Your task to perform on an android device: turn off improve location accuracy Image 0: 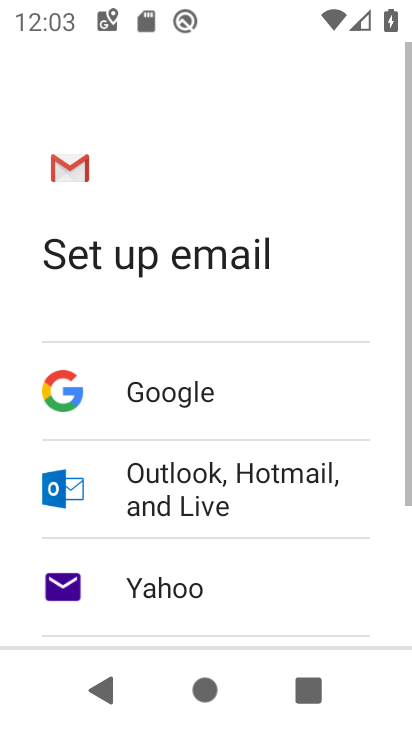
Step 0: press home button
Your task to perform on an android device: turn off improve location accuracy Image 1: 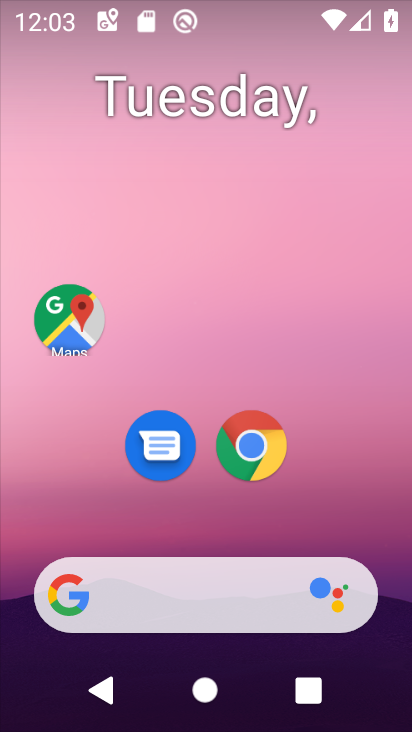
Step 1: drag from (331, 473) to (244, 10)
Your task to perform on an android device: turn off improve location accuracy Image 2: 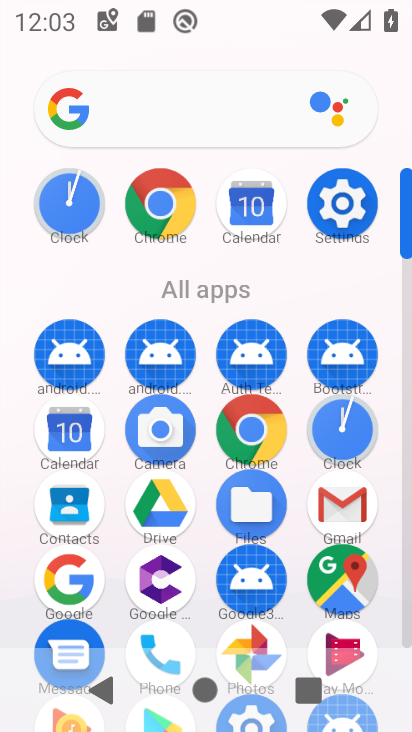
Step 2: click (337, 205)
Your task to perform on an android device: turn off improve location accuracy Image 3: 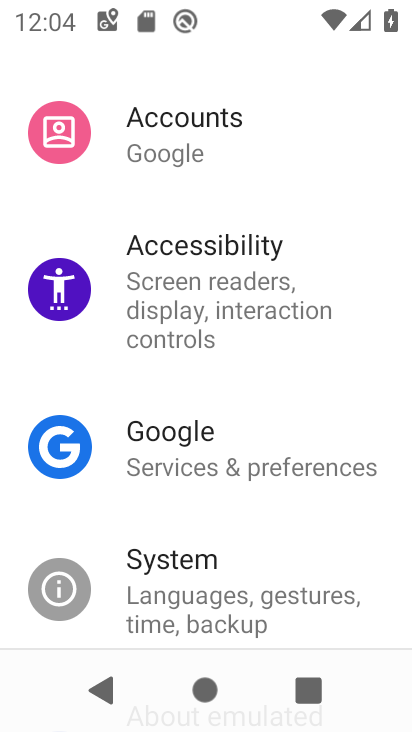
Step 3: drag from (216, 501) to (179, 128)
Your task to perform on an android device: turn off improve location accuracy Image 4: 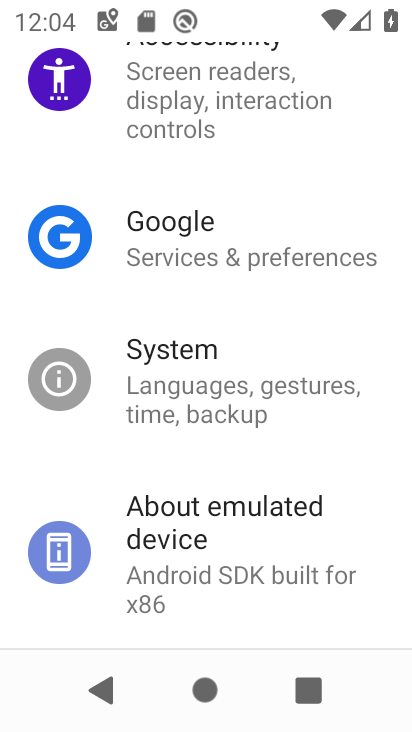
Step 4: drag from (211, 441) to (195, 138)
Your task to perform on an android device: turn off improve location accuracy Image 5: 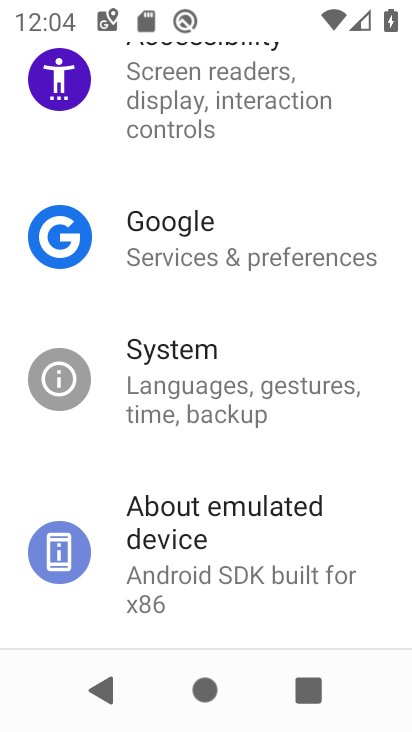
Step 5: drag from (265, 156) to (302, 692)
Your task to perform on an android device: turn off improve location accuracy Image 6: 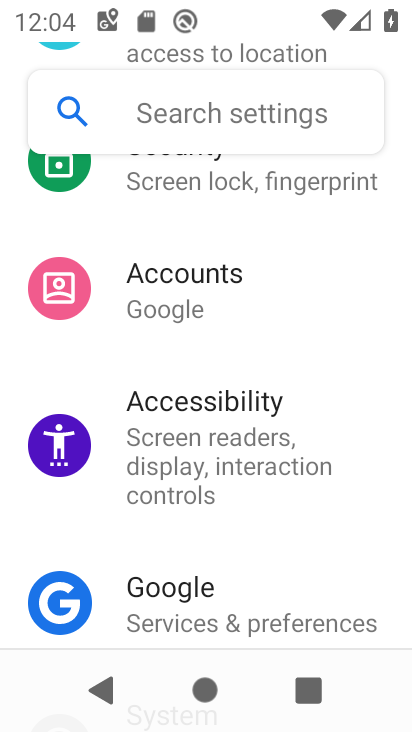
Step 6: drag from (175, 219) to (194, 617)
Your task to perform on an android device: turn off improve location accuracy Image 7: 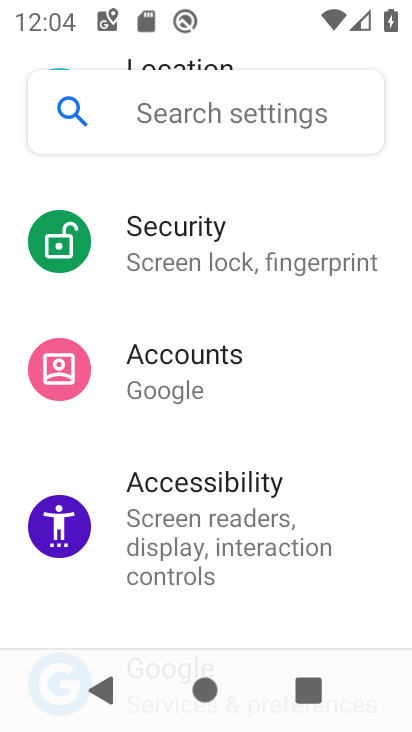
Step 7: drag from (150, 294) to (179, 704)
Your task to perform on an android device: turn off improve location accuracy Image 8: 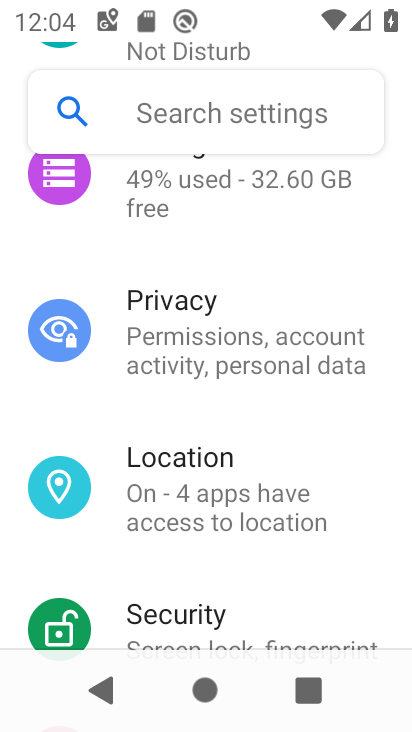
Step 8: click (195, 451)
Your task to perform on an android device: turn off improve location accuracy Image 9: 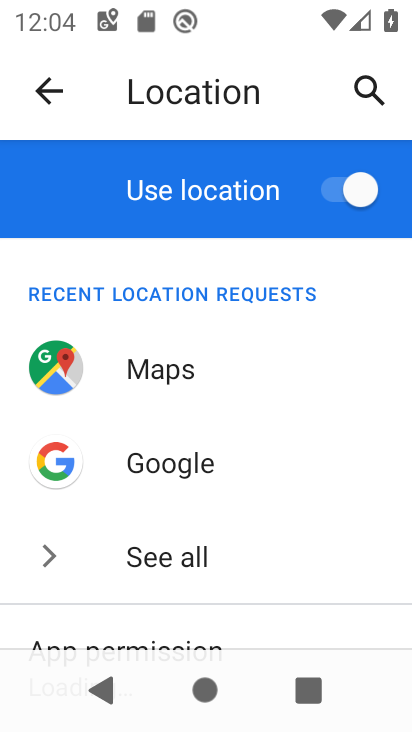
Step 9: drag from (294, 472) to (231, 172)
Your task to perform on an android device: turn off improve location accuracy Image 10: 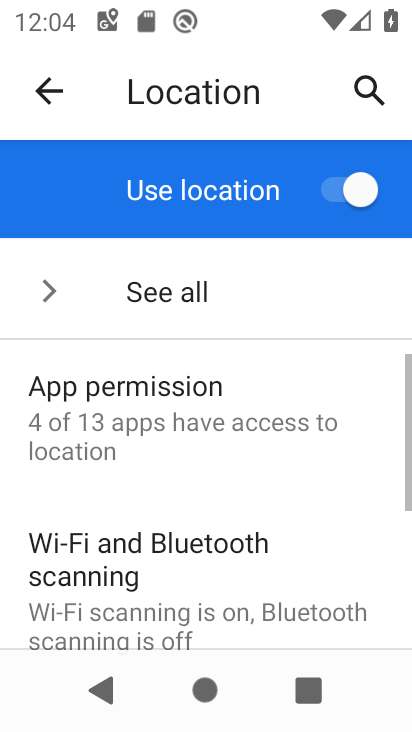
Step 10: drag from (258, 442) to (215, 169)
Your task to perform on an android device: turn off improve location accuracy Image 11: 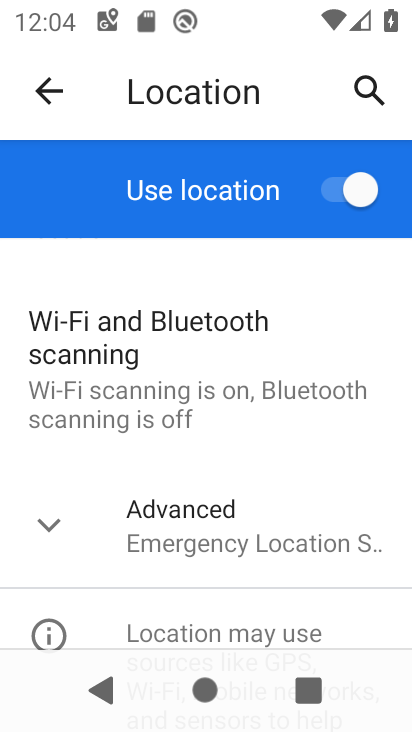
Step 11: click (51, 521)
Your task to perform on an android device: turn off improve location accuracy Image 12: 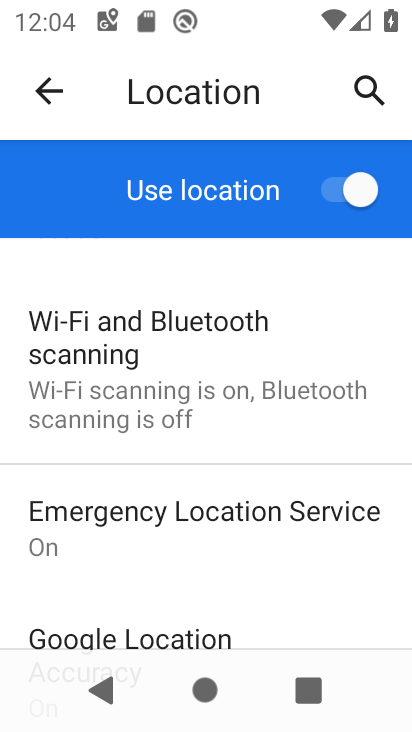
Step 12: drag from (183, 545) to (147, 239)
Your task to perform on an android device: turn off improve location accuracy Image 13: 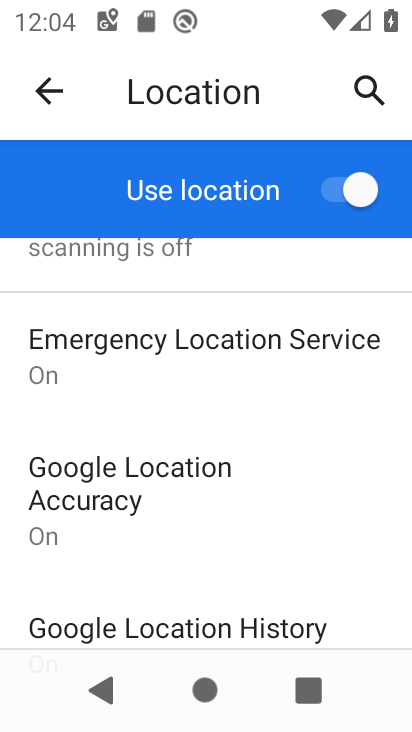
Step 13: click (94, 490)
Your task to perform on an android device: turn off improve location accuracy Image 14: 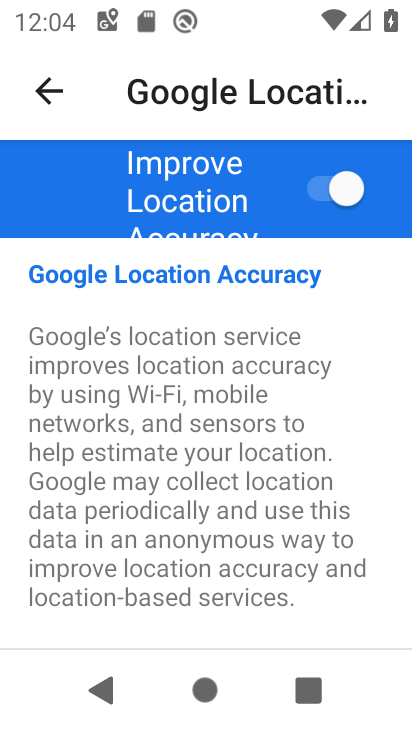
Step 14: click (339, 186)
Your task to perform on an android device: turn off improve location accuracy Image 15: 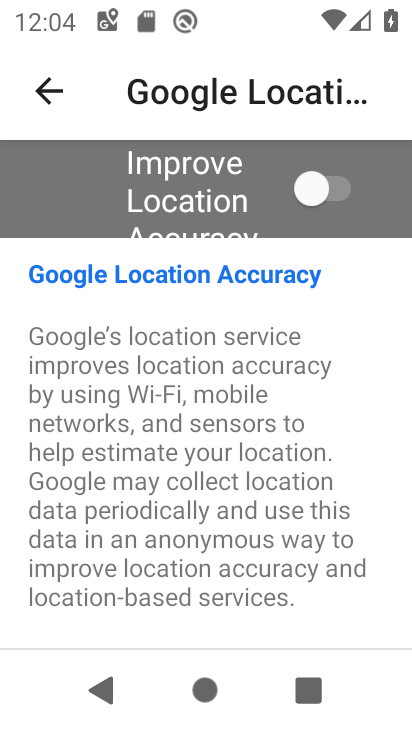
Step 15: task complete